Your task to perform on an android device: open app "Google Docs" (install if not already installed) Image 0: 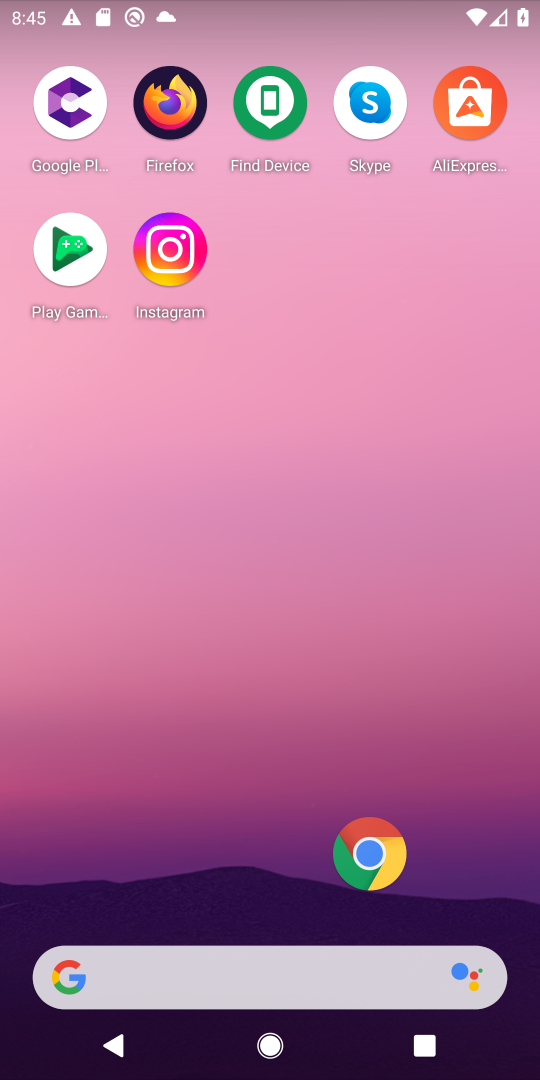
Step 0: drag from (256, 895) to (261, 108)
Your task to perform on an android device: open app "Google Docs" (install if not already installed) Image 1: 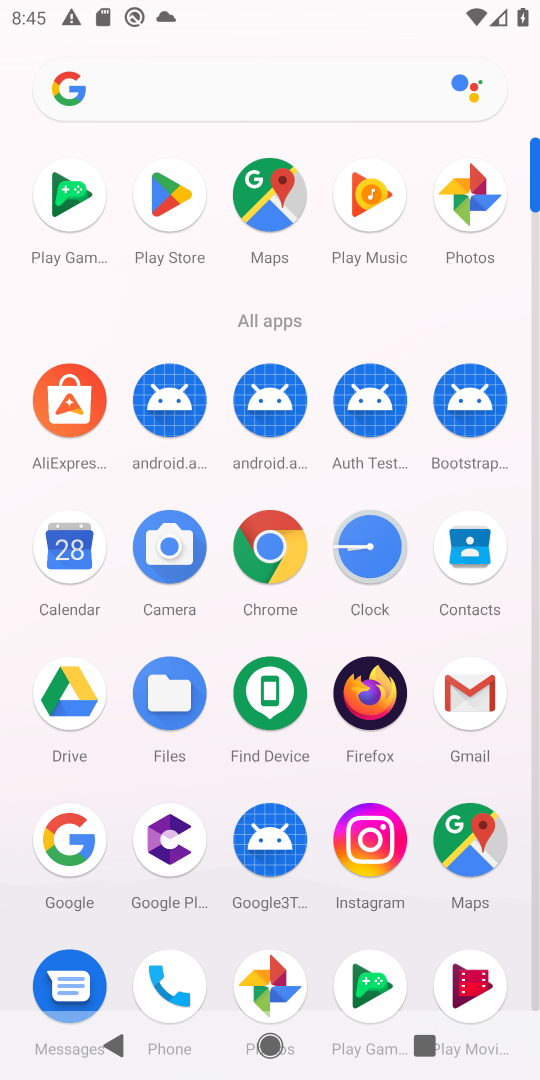
Step 1: click (178, 196)
Your task to perform on an android device: open app "Google Docs" (install if not already installed) Image 2: 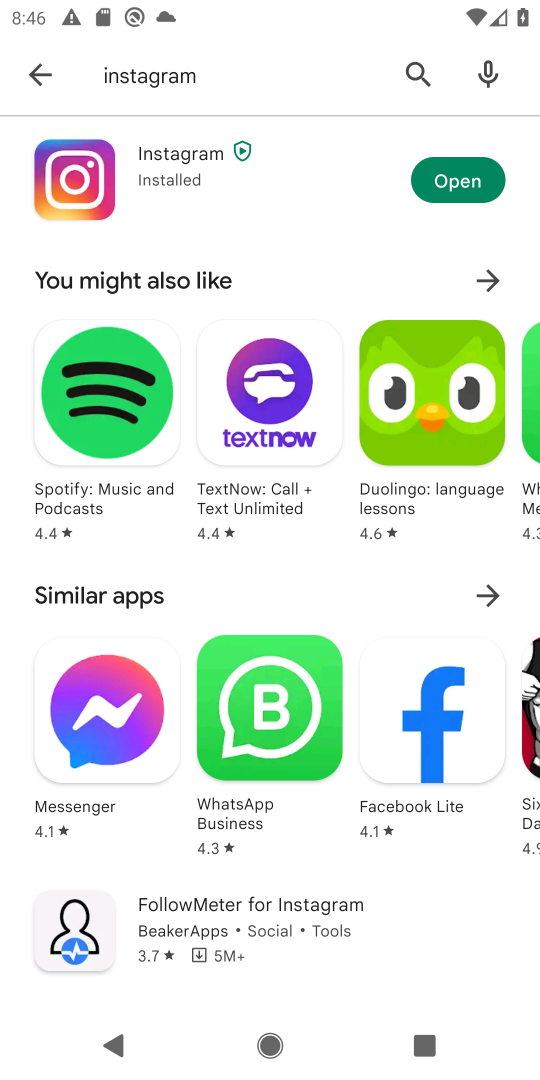
Step 2: press home button
Your task to perform on an android device: open app "Google Docs" (install if not already installed) Image 3: 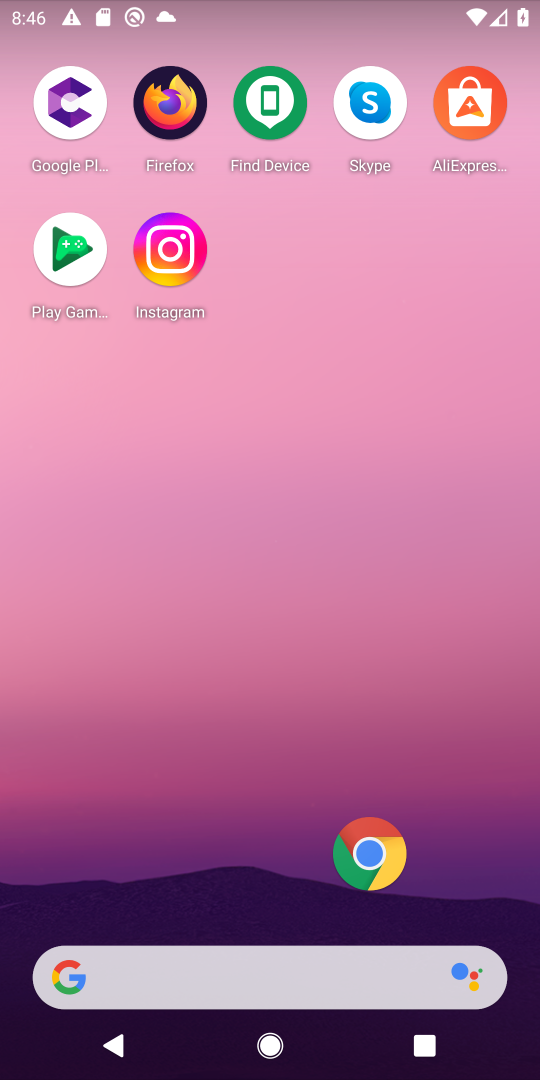
Step 3: drag from (241, 767) to (242, 12)
Your task to perform on an android device: open app "Google Docs" (install if not already installed) Image 4: 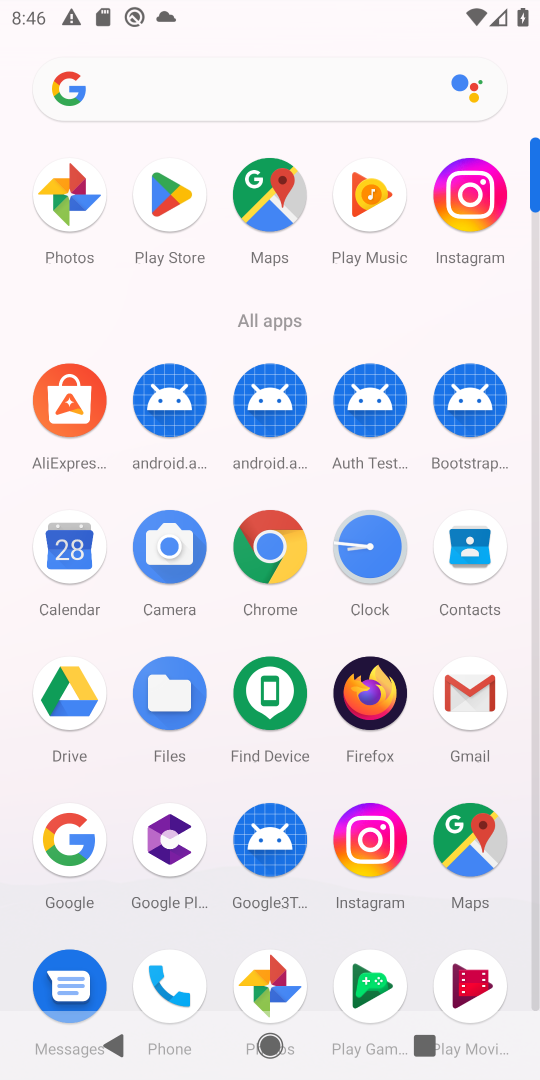
Step 4: click (166, 352)
Your task to perform on an android device: open app "Google Docs" (install if not already installed) Image 5: 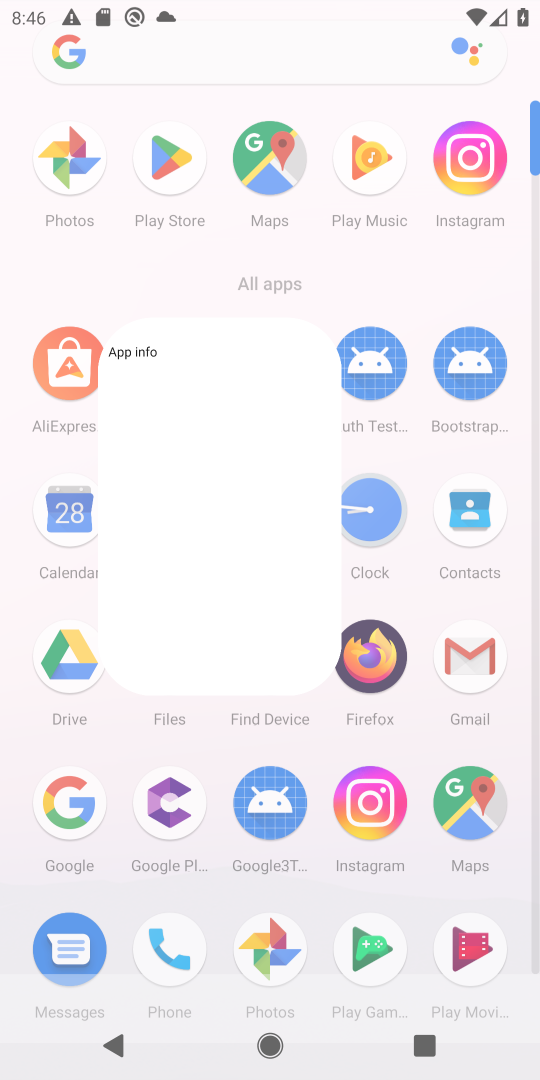
Step 5: click (172, 238)
Your task to perform on an android device: open app "Google Docs" (install if not already installed) Image 6: 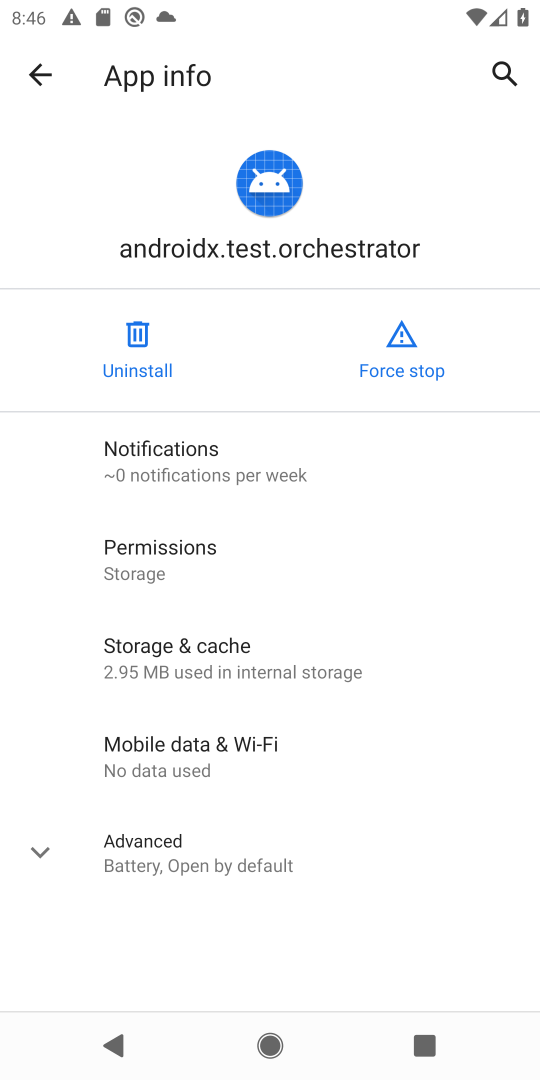
Step 6: press back button
Your task to perform on an android device: open app "Google Docs" (install if not already installed) Image 7: 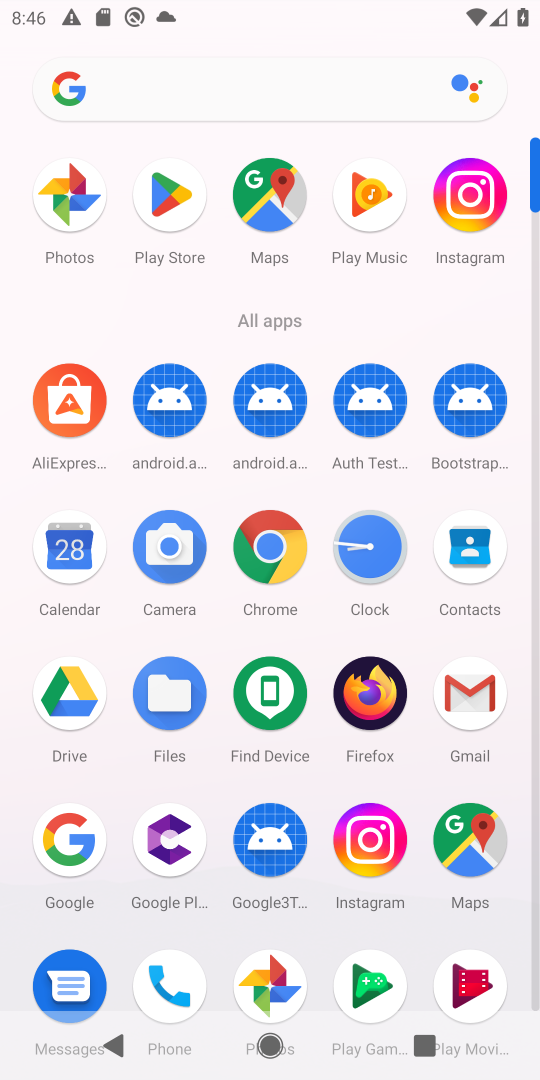
Step 7: click (163, 259)
Your task to perform on an android device: open app "Google Docs" (install if not already installed) Image 8: 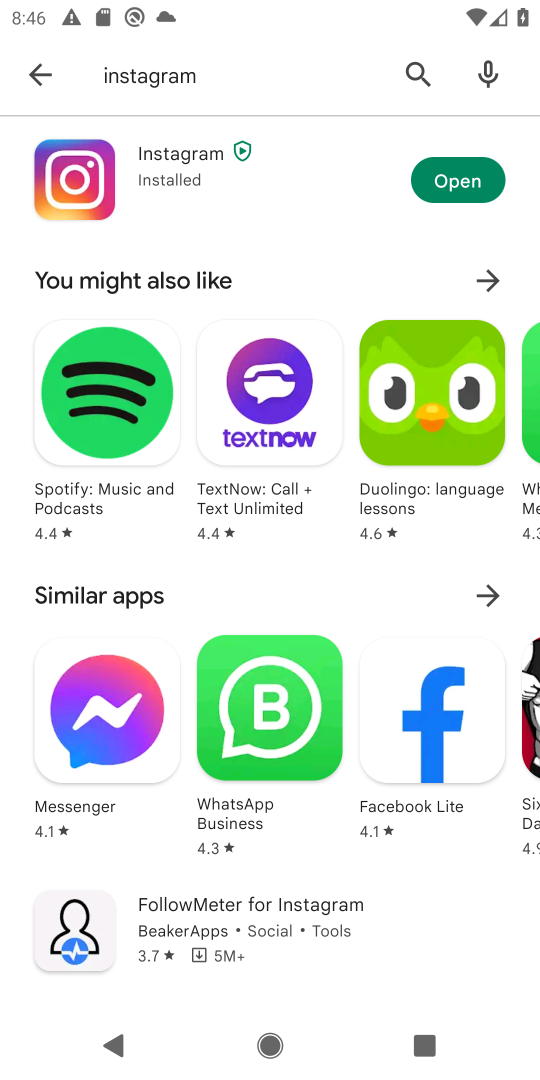
Step 8: click (43, 76)
Your task to perform on an android device: open app "Google Docs" (install if not already installed) Image 9: 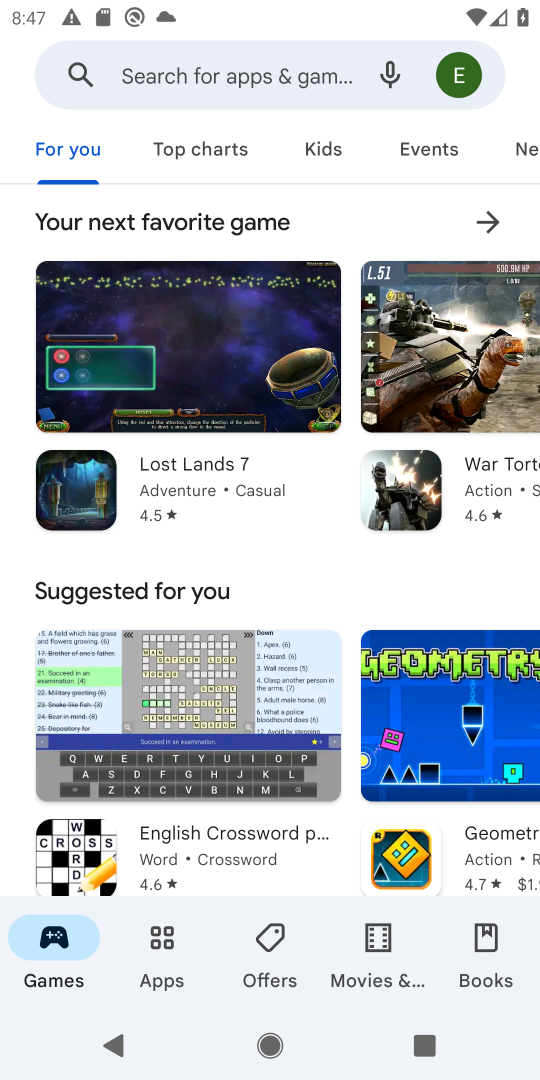
Step 9: click (236, 57)
Your task to perform on an android device: open app "Google Docs" (install if not already installed) Image 10: 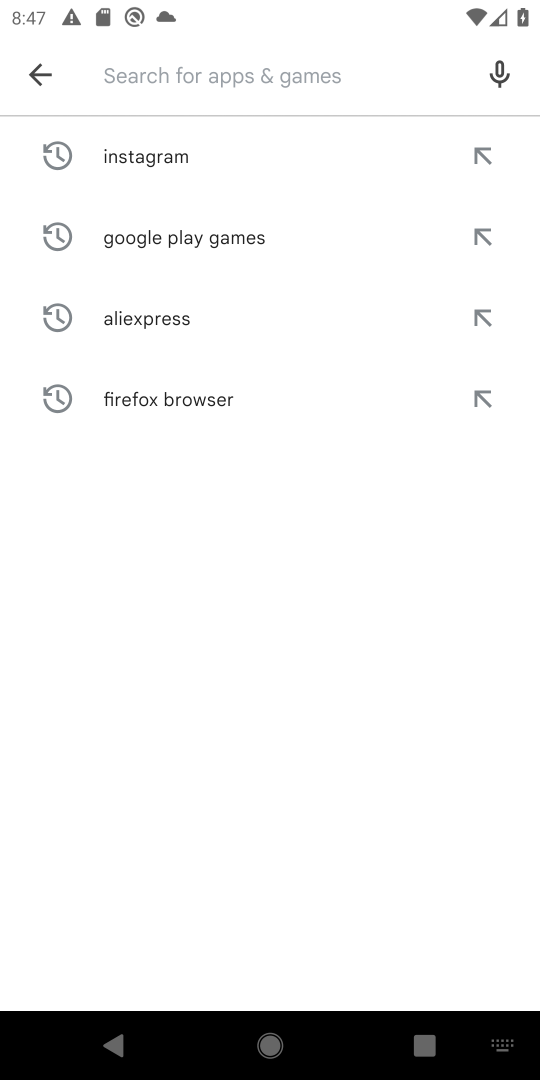
Step 10: type "Google Docs"
Your task to perform on an android device: open app "Google Docs" (install if not already installed) Image 11: 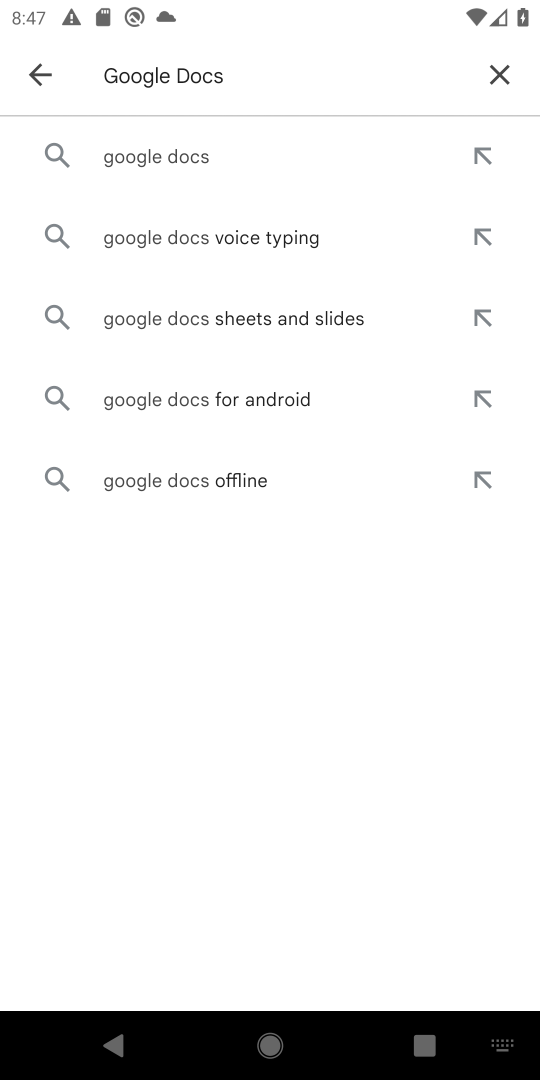
Step 11: click (169, 162)
Your task to perform on an android device: open app "Google Docs" (install if not already installed) Image 12: 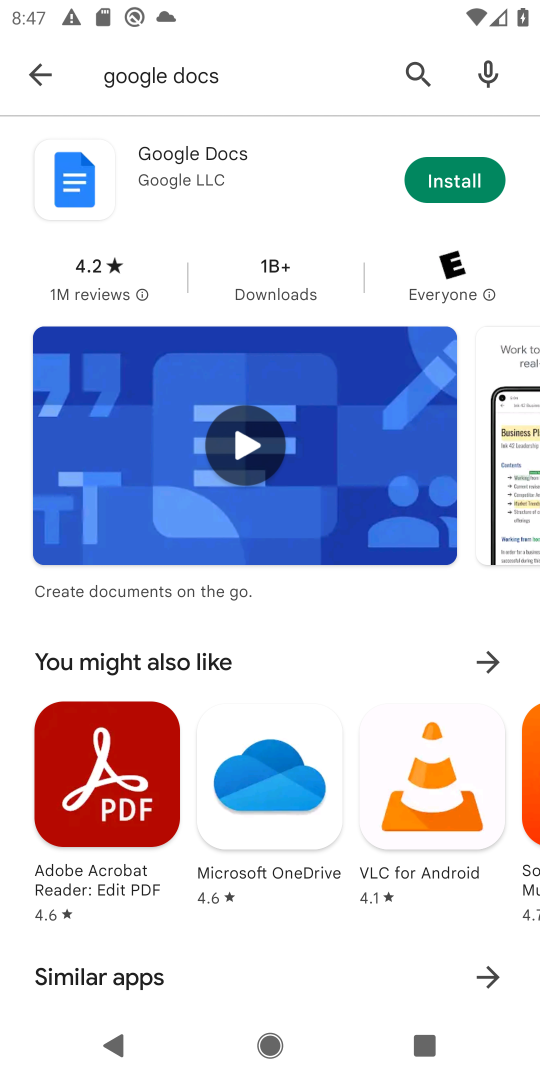
Step 12: click (457, 184)
Your task to perform on an android device: open app "Google Docs" (install if not already installed) Image 13: 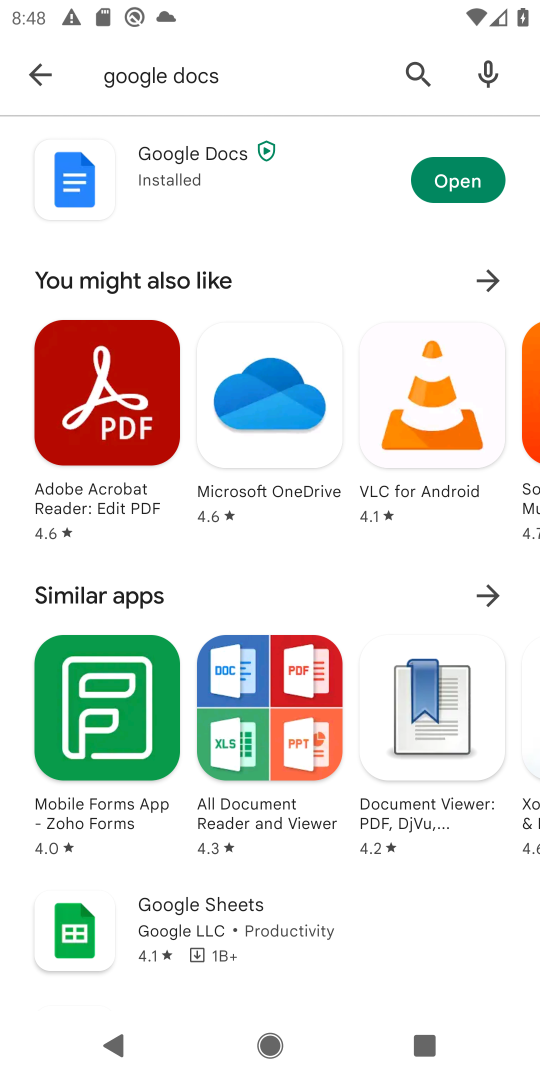
Step 13: click (452, 184)
Your task to perform on an android device: open app "Google Docs" (install if not already installed) Image 14: 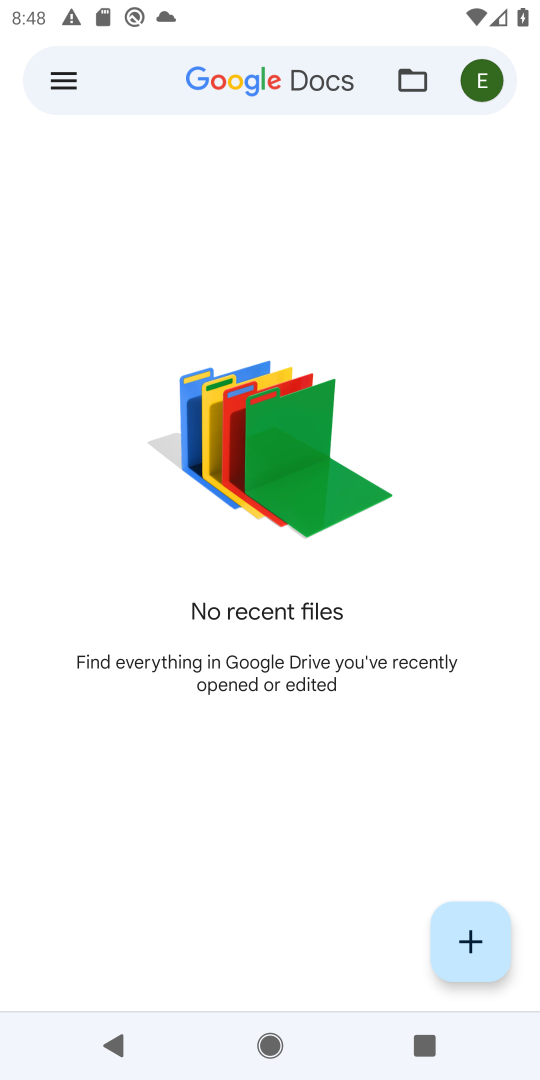
Step 14: task complete